Your task to perform on an android device: Open Google Image 0: 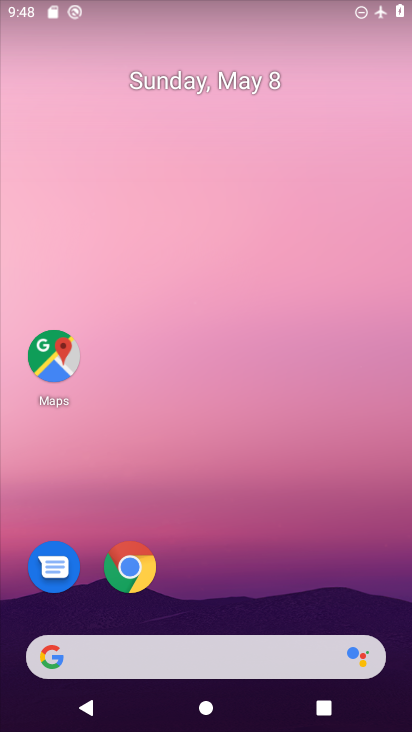
Step 0: drag from (218, 617) to (216, 171)
Your task to perform on an android device: Open Google Image 1: 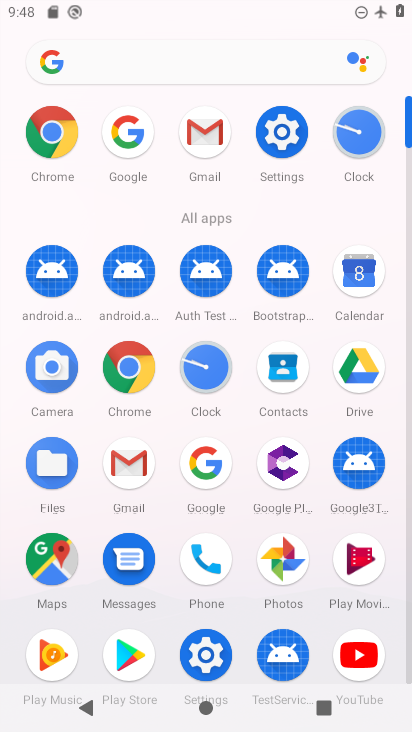
Step 1: click (204, 475)
Your task to perform on an android device: Open Google Image 2: 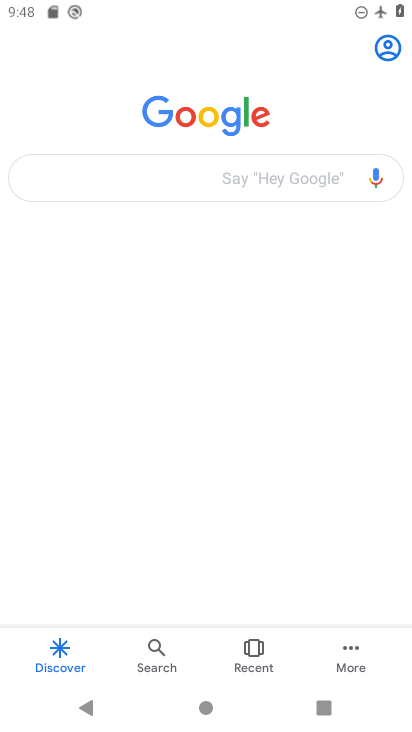
Step 2: task complete